Your task to perform on an android device: open a bookmark in the chrome app Image 0: 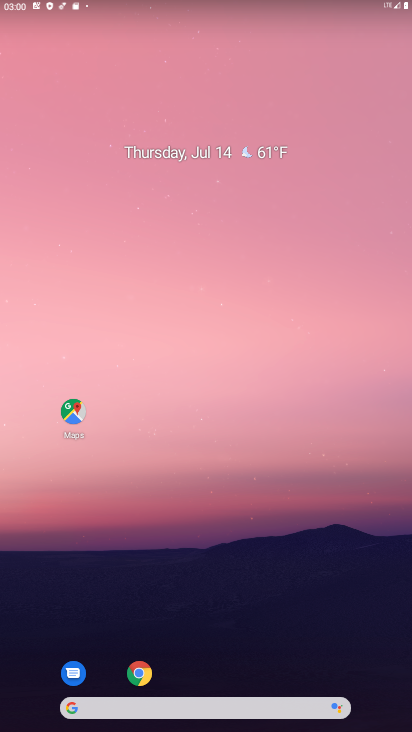
Step 0: click (134, 676)
Your task to perform on an android device: open a bookmark in the chrome app Image 1: 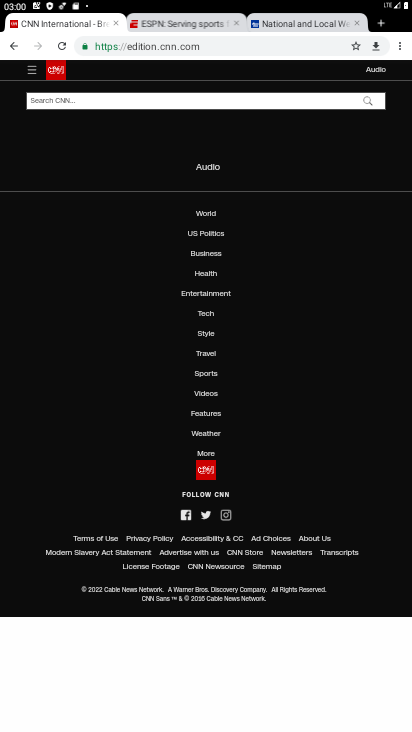
Step 1: click (397, 41)
Your task to perform on an android device: open a bookmark in the chrome app Image 2: 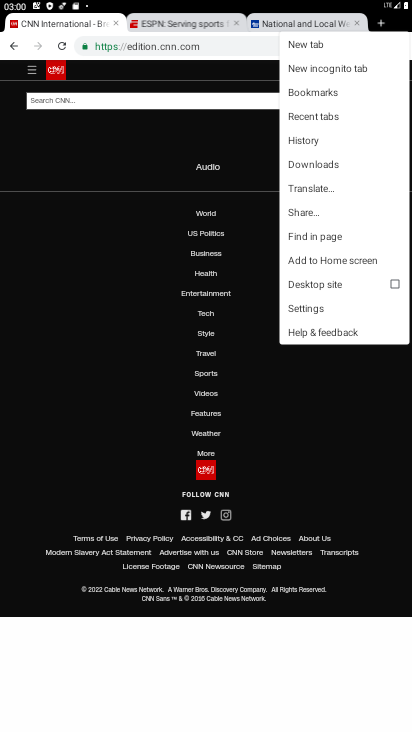
Step 2: click (301, 85)
Your task to perform on an android device: open a bookmark in the chrome app Image 3: 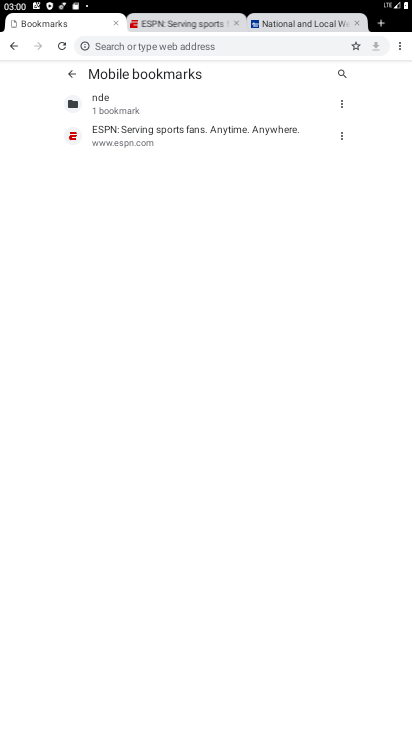
Step 3: click (227, 127)
Your task to perform on an android device: open a bookmark in the chrome app Image 4: 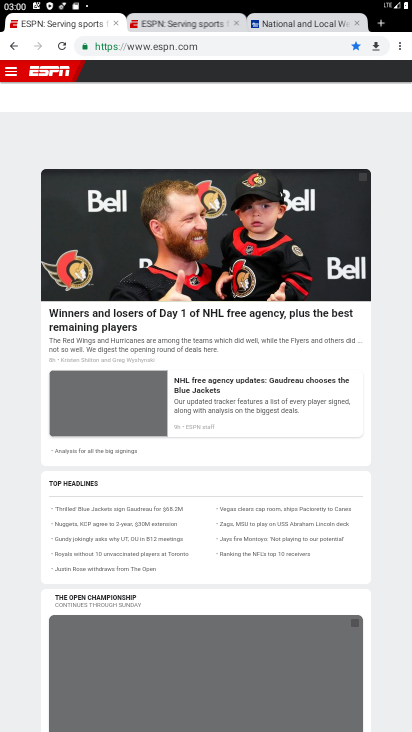
Step 4: task complete